Your task to perform on an android device: Open ESPN.com Image 0: 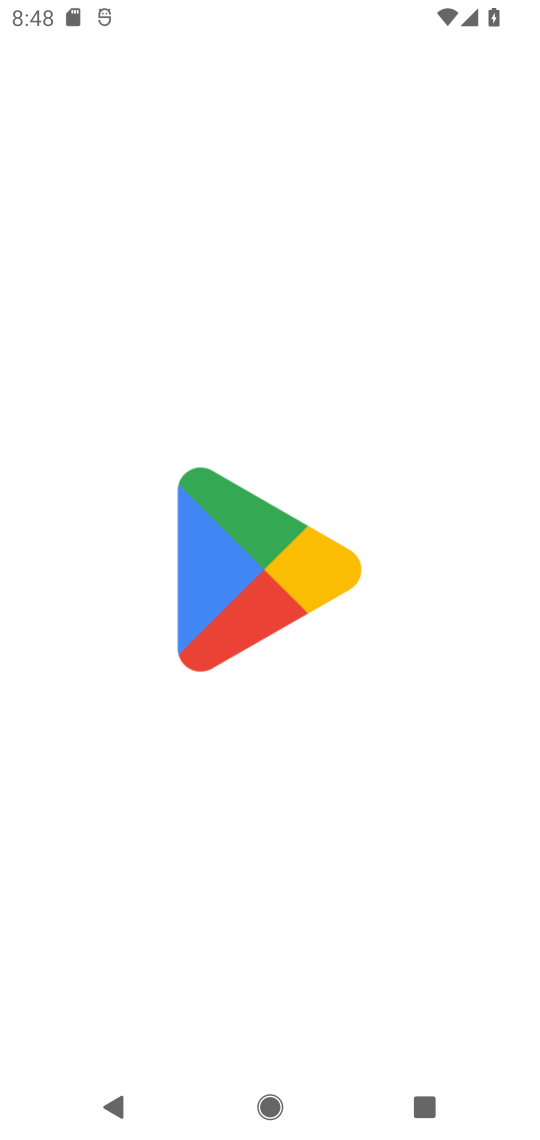
Step 0: press home button
Your task to perform on an android device: Open ESPN.com Image 1: 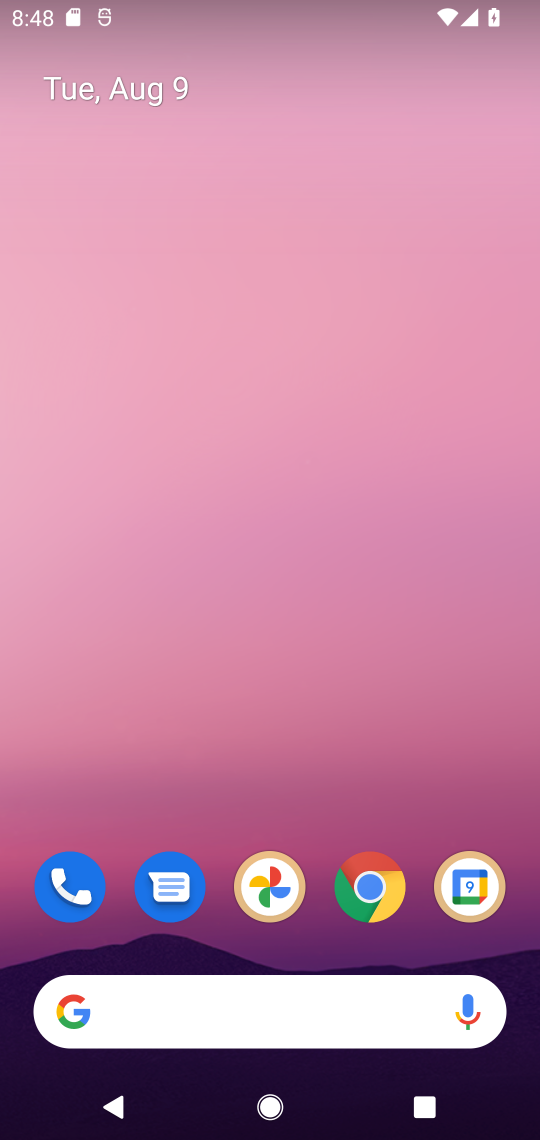
Step 1: click (372, 858)
Your task to perform on an android device: Open ESPN.com Image 2: 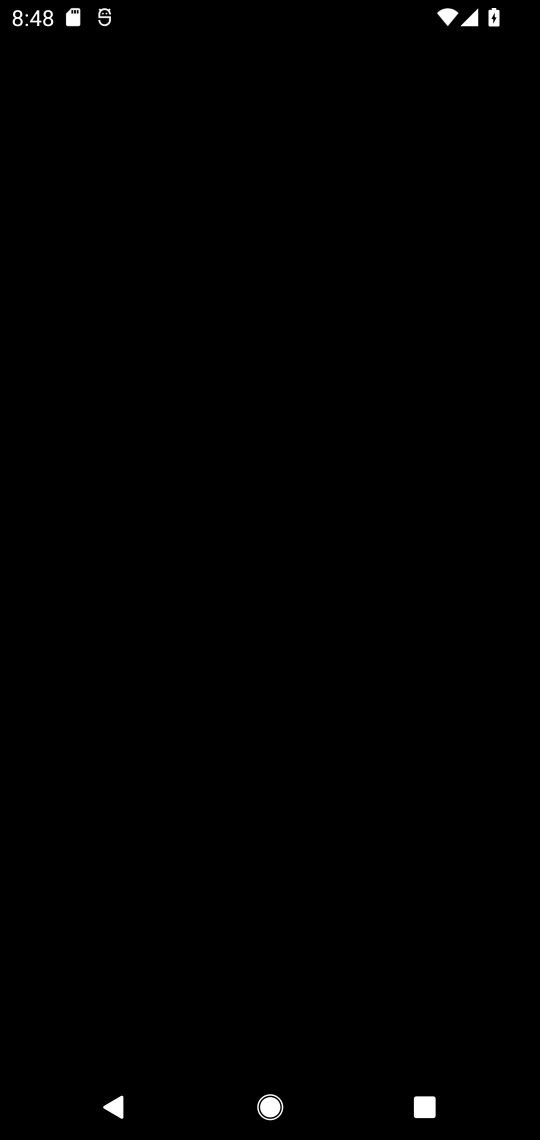
Step 2: click (362, 899)
Your task to perform on an android device: Open ESPN.com Image 3: 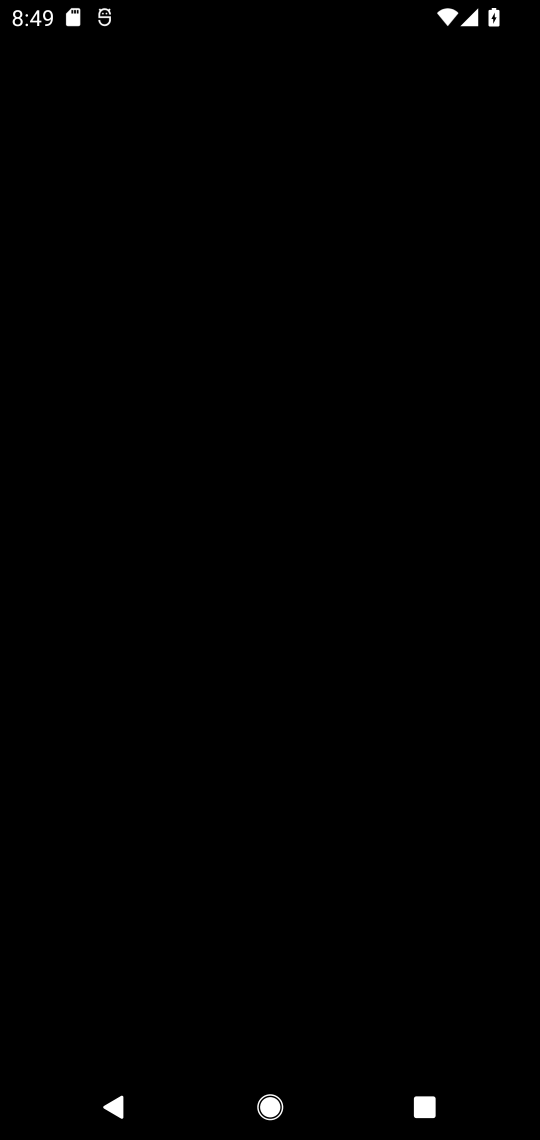
Step 3: task complete